Your task to perform on an android device: Do I have any events this weekend? Image 0: 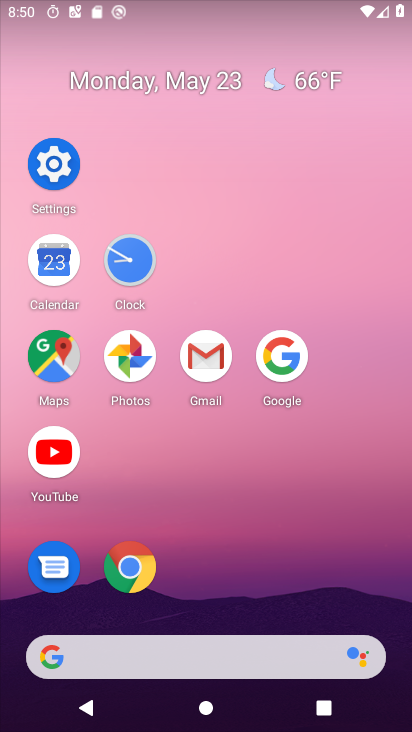
Step 0: click (47, 270)
Your task to perform on an android device: Do I have any events this weekend? Image 1: 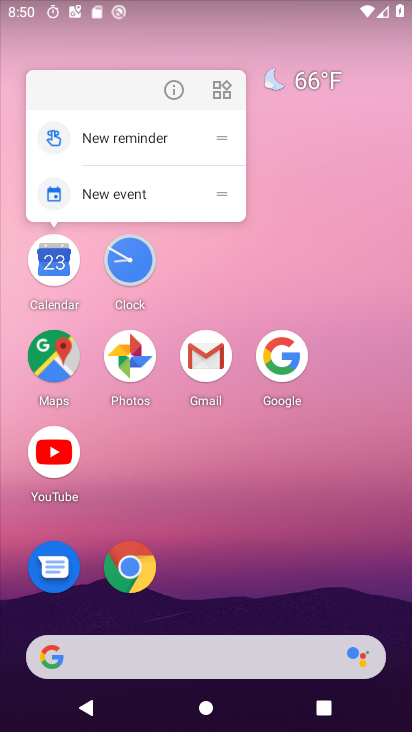
Step 1: click (60, 274)
Your task to perform on an android device: Do I have any events this weekend? Image 2: 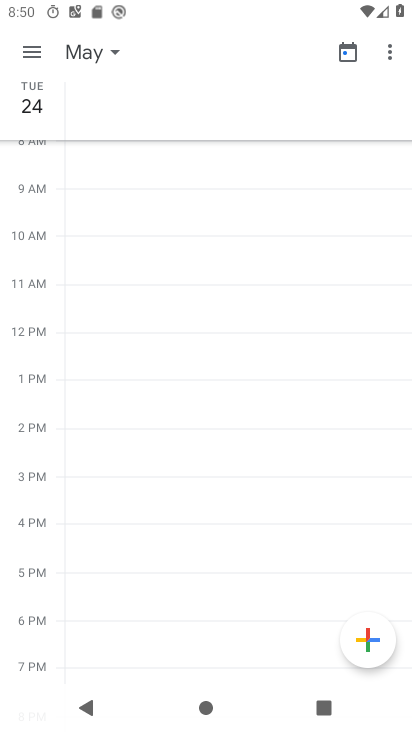
Step 2: click (38, 51)
Your task to perform on an android device: Do I have any events this weekend? Image 3: 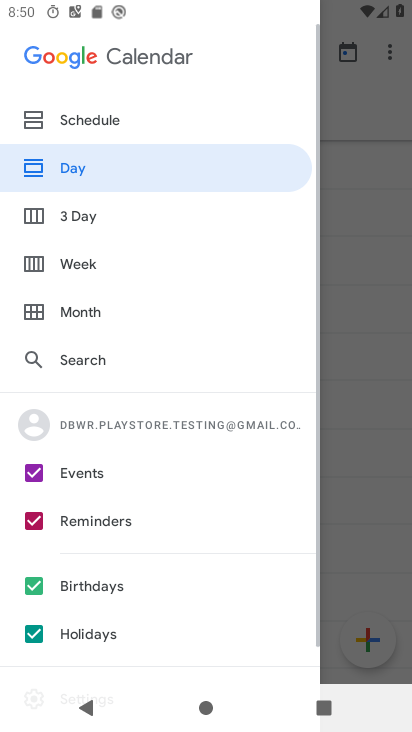
Step 3: click (145, 254)
Your task to perform on an android device: Do I have any events this weekend? Image 4: 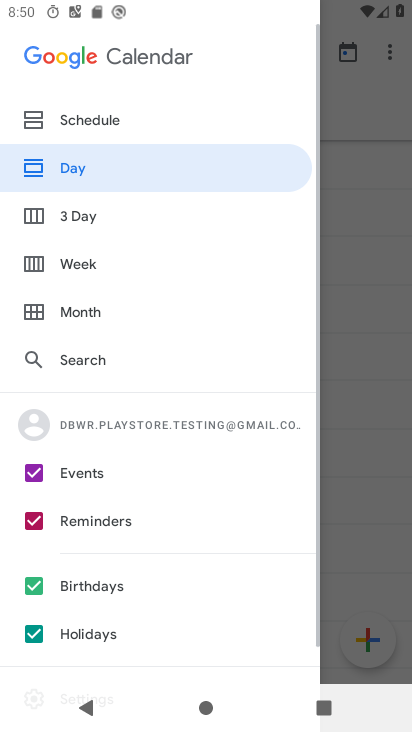
Step 4: click (67, 270)
Your task to perform on an android device: Do I have any events this weekend? Image 5: 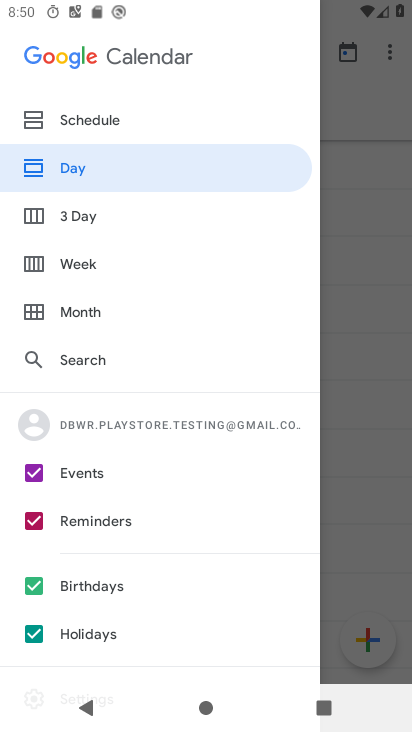
Step 5: click (85, 250)
Your task to perform on an android device: Do I have any events this weekend? Image 6: 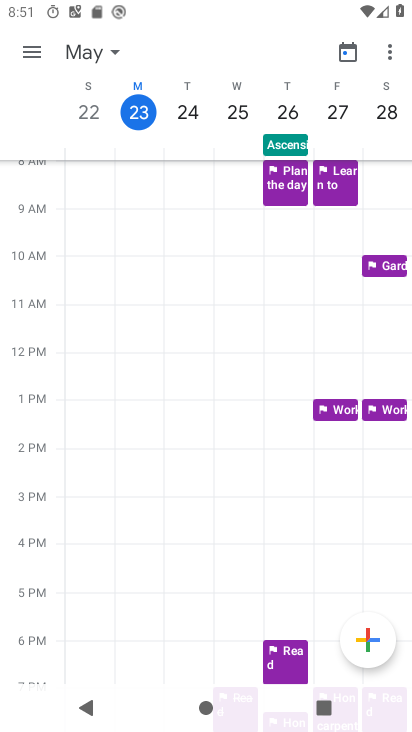
Step 6: click (390, 113)
Your task to perform on an android device: Do I have any events this weekend? Image 7: 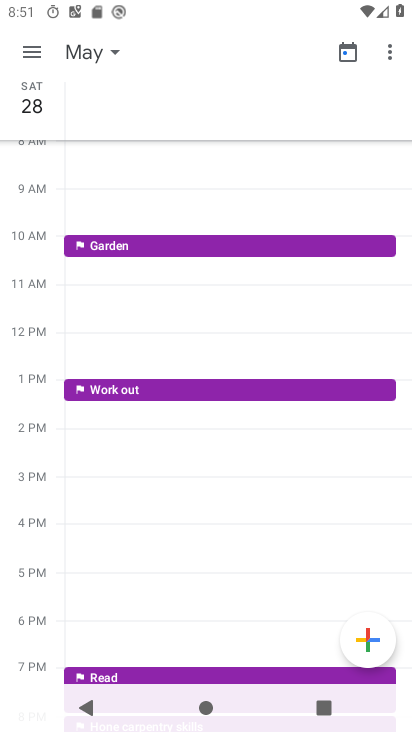
Step 7: task complete